Your task to perform on an android device: What's the weather? Image 0: 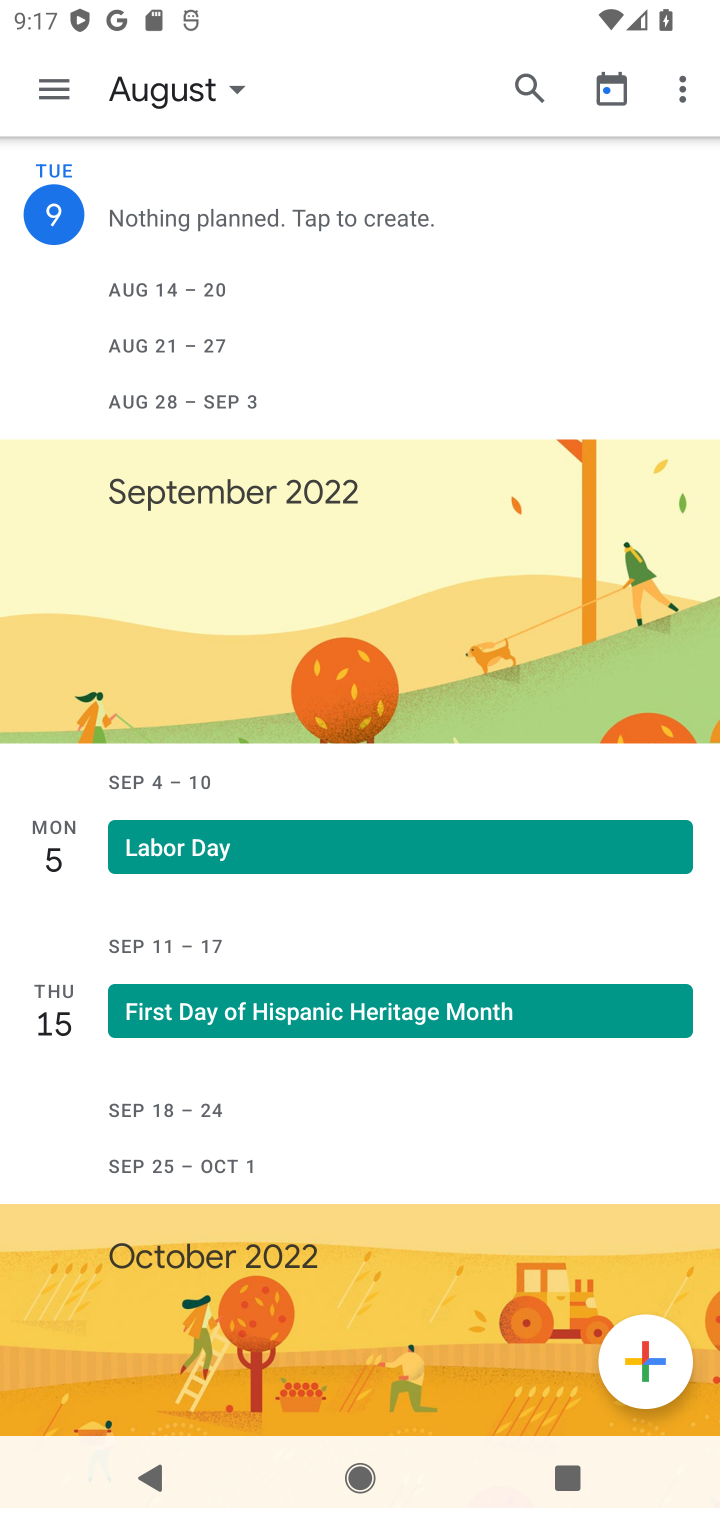
Step 0: press home button
Your task to perform on an android device: What's the weather? Image 1: 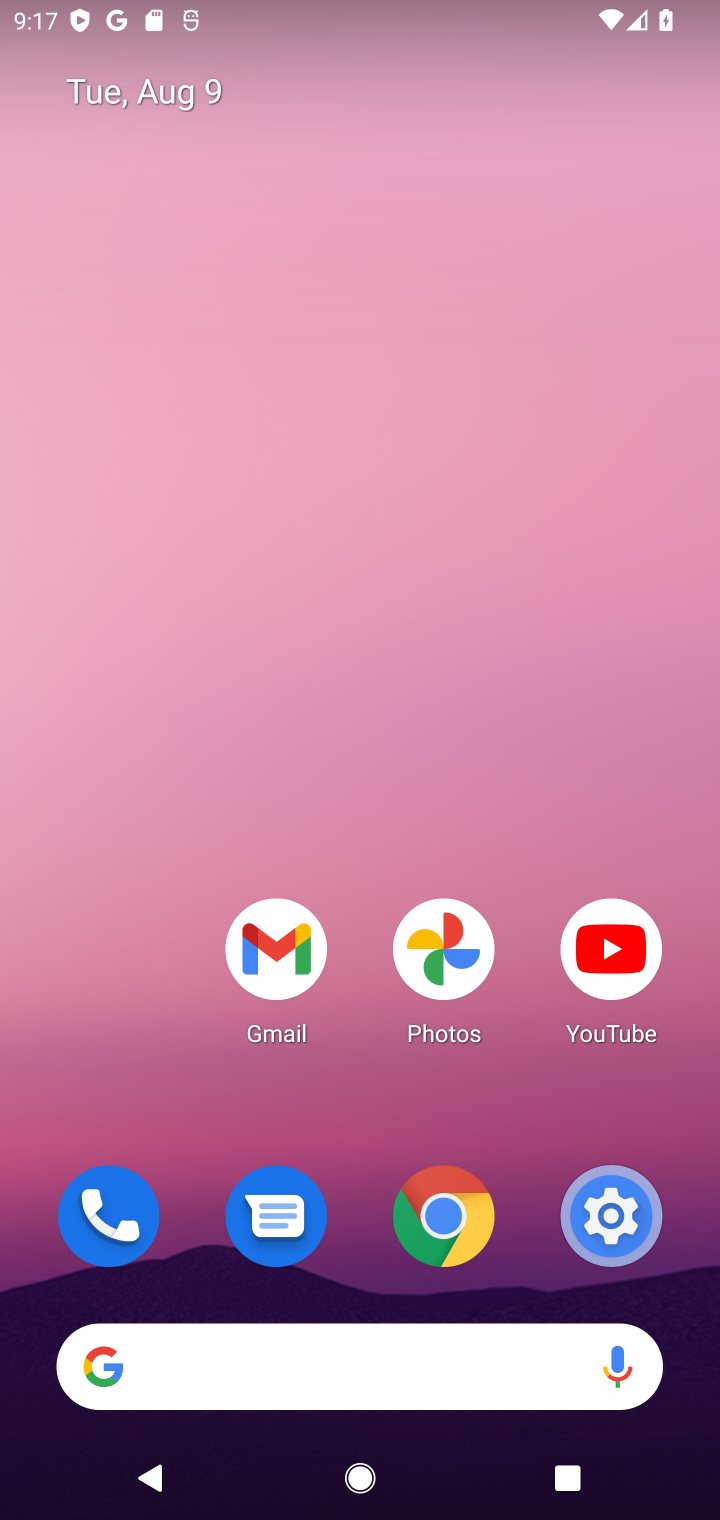
Step 1: drag from (345, 1138) to (360, 707)
Your task to perform on an android device: What's the weather? Image 2: 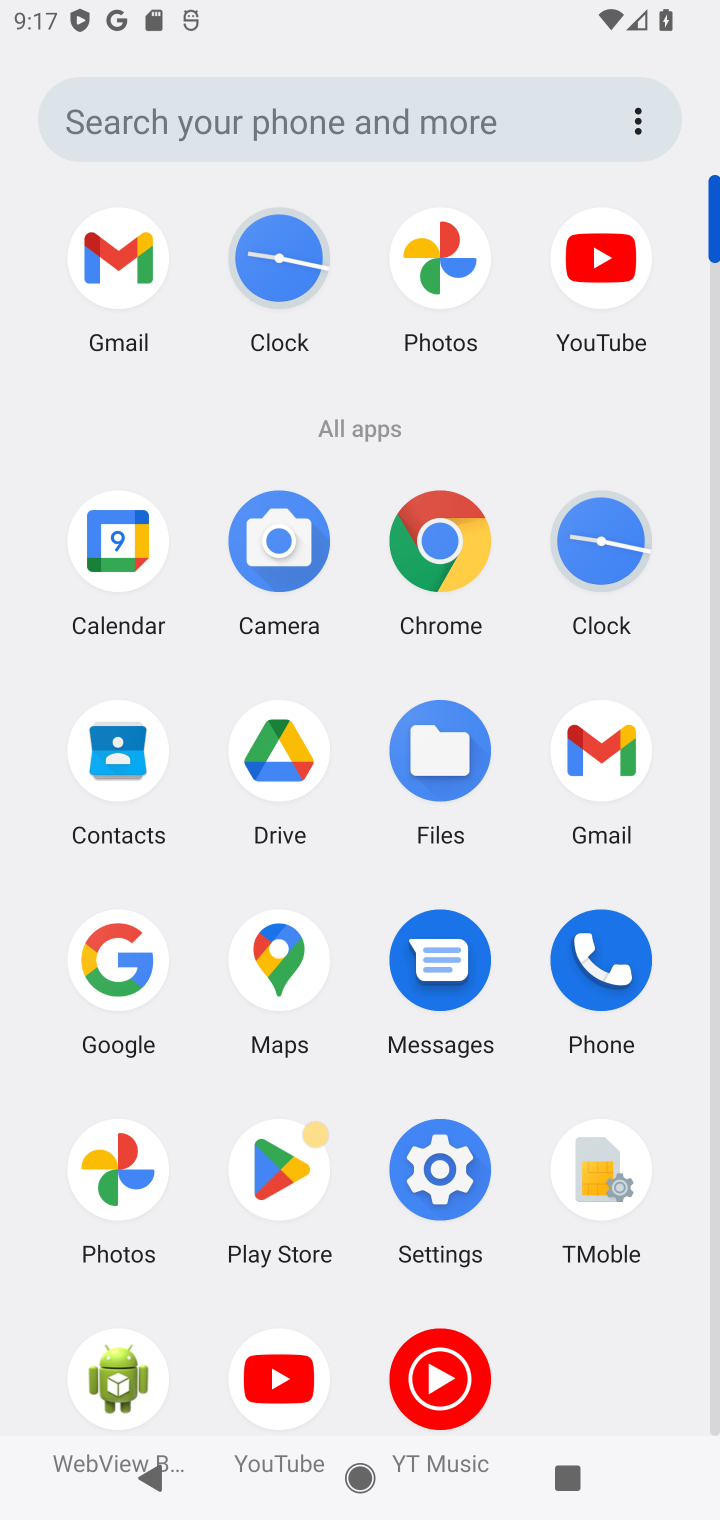
Step 2: click (103, 970)
Your task to perform on an android device: What's the weather? Image 3: 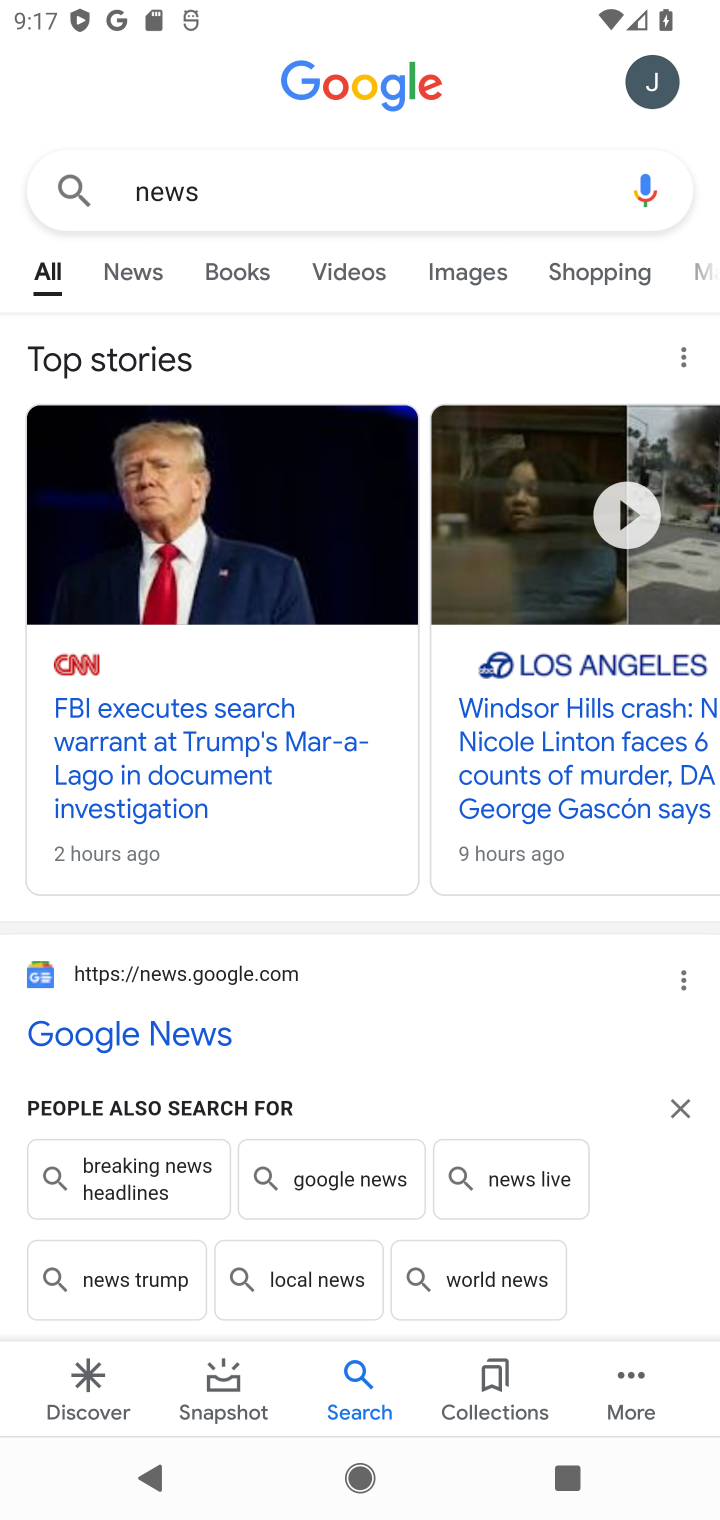
Step 3: click (232, 194)
Your task to perform on an android device: What's the weather? Image 4: 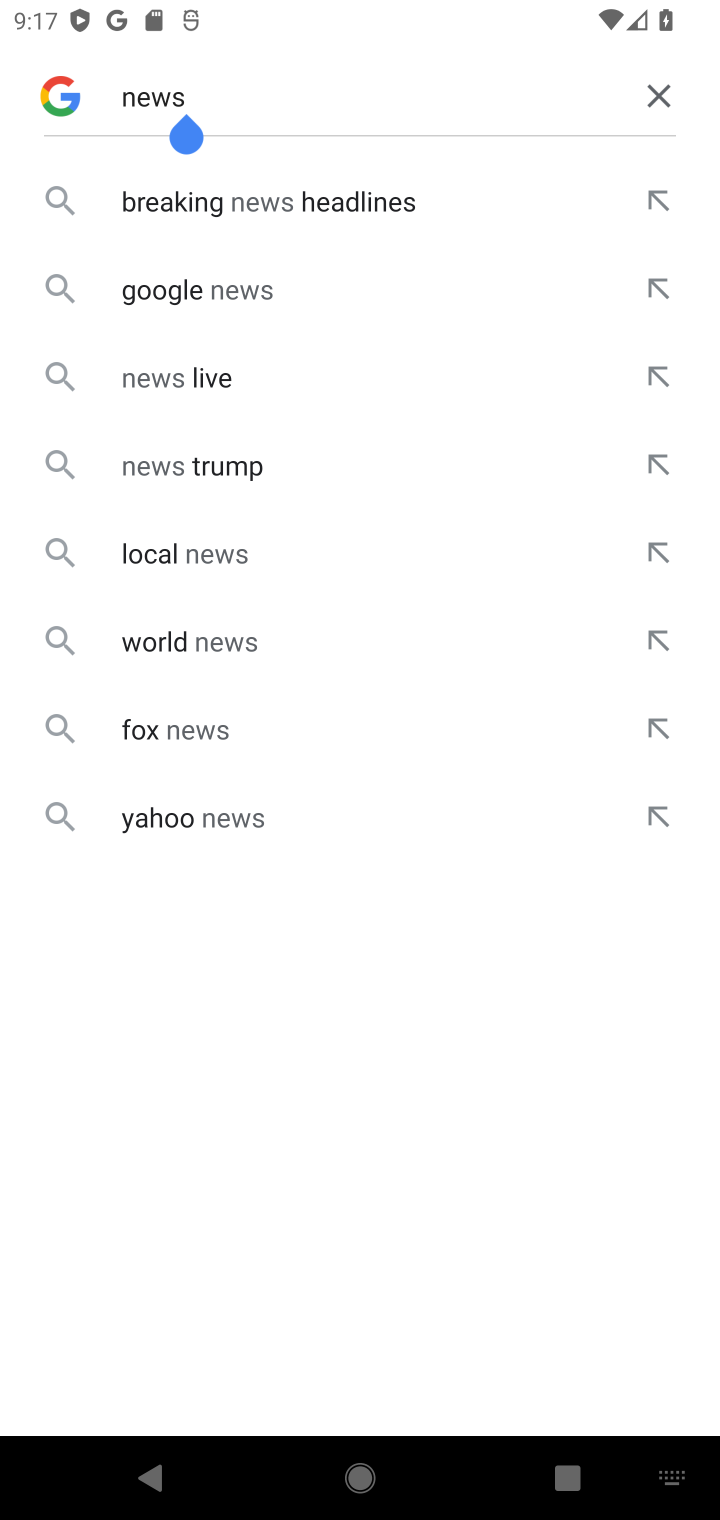
Step 4: click (649, 102)
Your task to perform on an android device: What's the weather? Image 5: 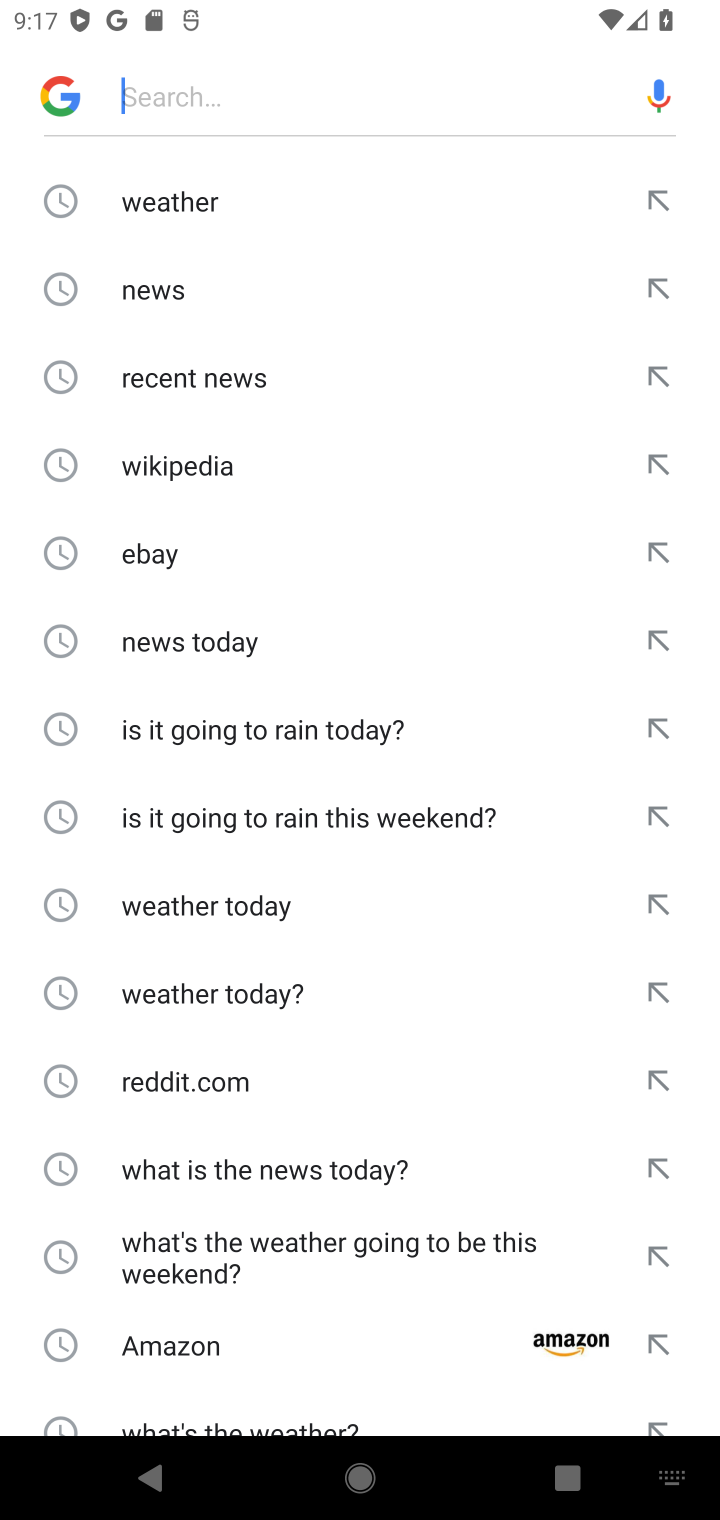
Step 5: click (191, 208)
Your task to perform on an android device: What's the weather? Image 6: 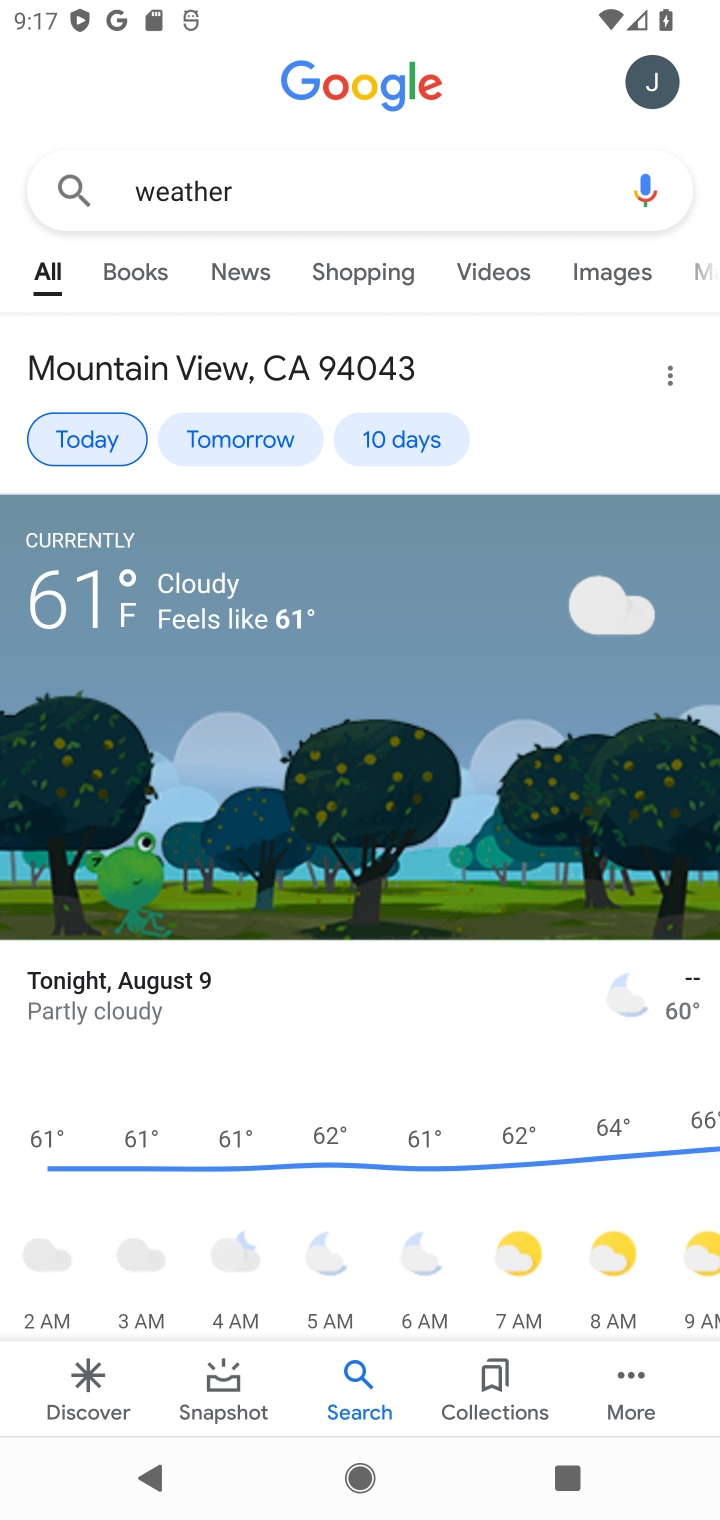
Step 6: task complete